Your task to perform on an android device: Open Yahoo.com Image 0: 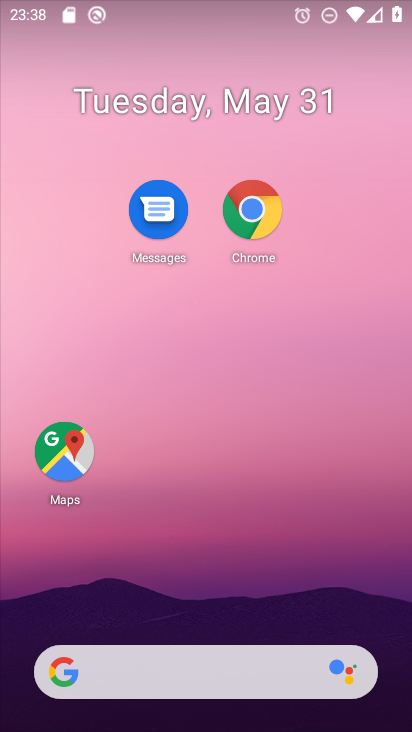
Step 0: click (250, 202)
Your task to perform on an android device: Open Yahoo.com Image 1: 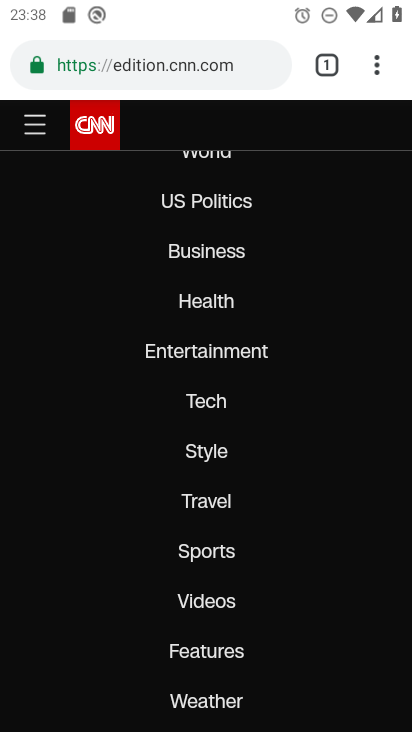
Step 1: click (316, 62)
Your task to perform on an android device: Open Yahoo.com Image 2: 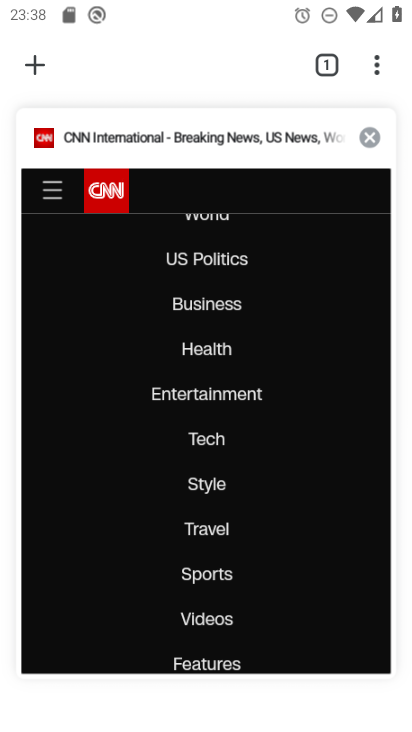
Step 2: click (39, 63)
Your task to perform on an android device: Open Yahoo.com Image 3: 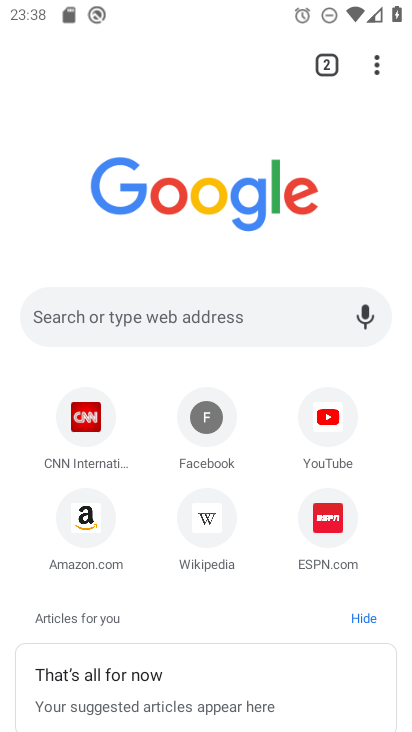
Step 3: click (131, 308)
Your task to perform on an android device: Open Yahoo.com Image 4: 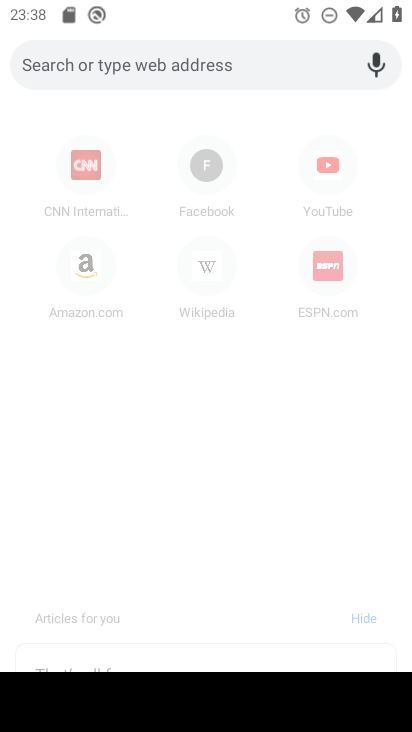
Step 4: type "yahoo"
Your task to perform on an android device: Open Yahoo.com Image 5: 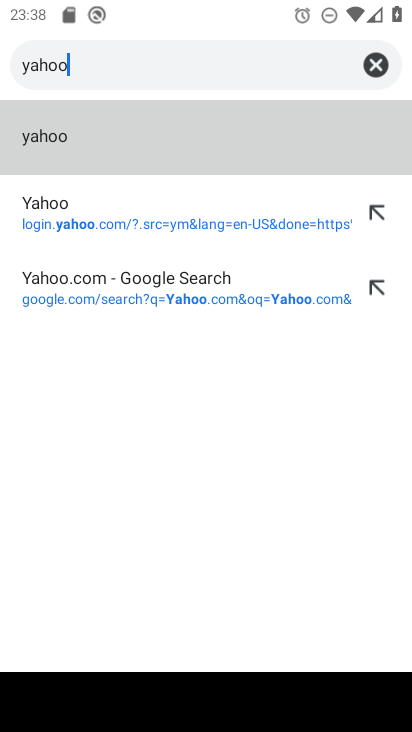
Step 5: click (165, 278)
Your task to perform on an android device: Open Yahoo.com Image 6: 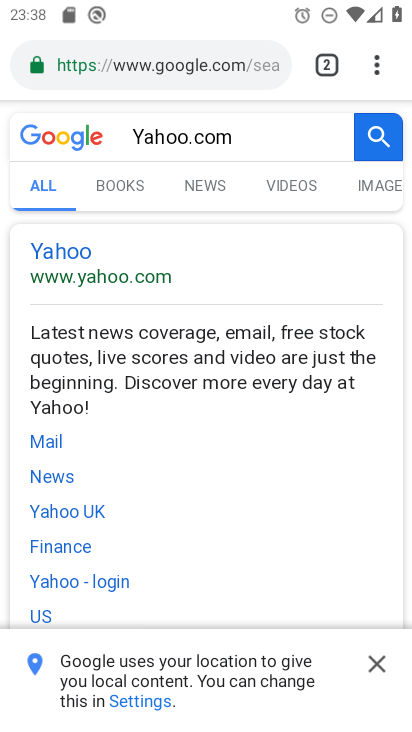
Step 6: click (54, 245)
Your task to perform on an android device: Open Yahoo.com Image 7: 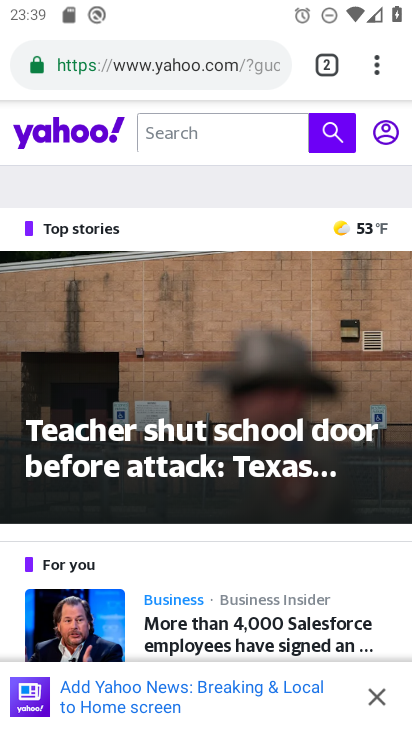
Step 7: task complete